Your task to perform on an android device: see creations saved in the google photos Image 0: 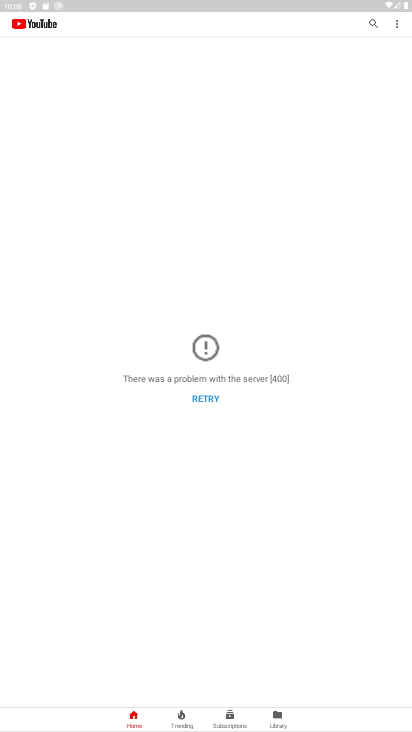
Step 0: press home button
Your task to perform on an android device: see creations saved in the google photos Image 1: 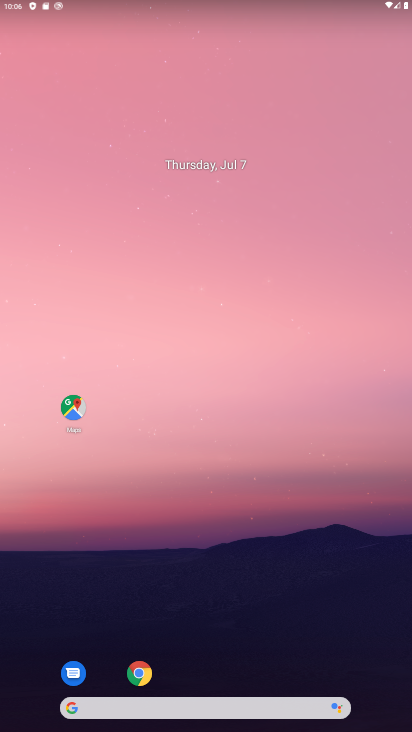
Step 1: drag from (229, 647) to (346, 108)
Your task to perform on an android device: see creations saved in the google photos Image 2: 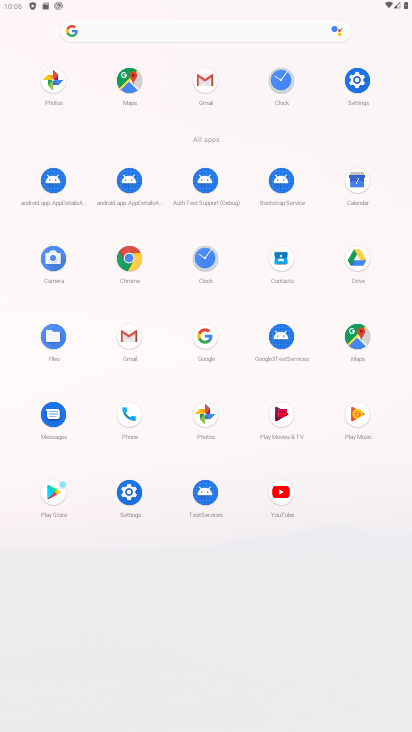
Step 2: click (209, 423)
Your task to perform on an android device: see creations saved in the google photos Image 3: 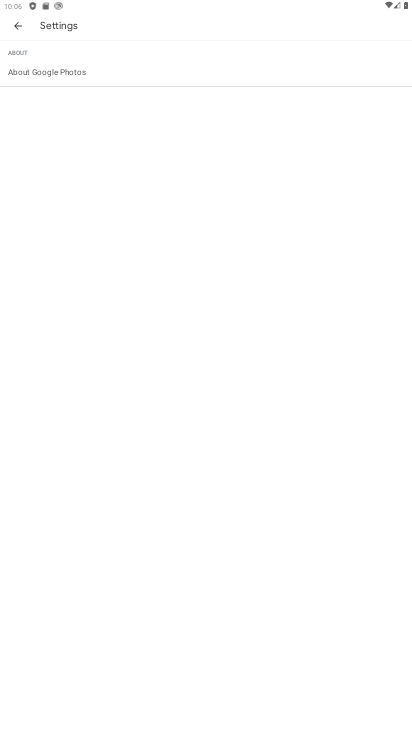
Step 3: click (17, 22)
Your task to perform on an android device: see creations saved in the google photos Image 4: 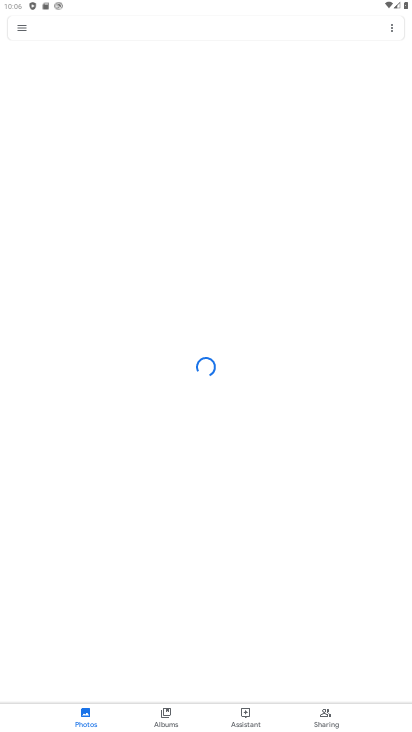
Step 4: click (201, 25)
Your task to perform on an android device: see creations saved in the google photos Image 5: 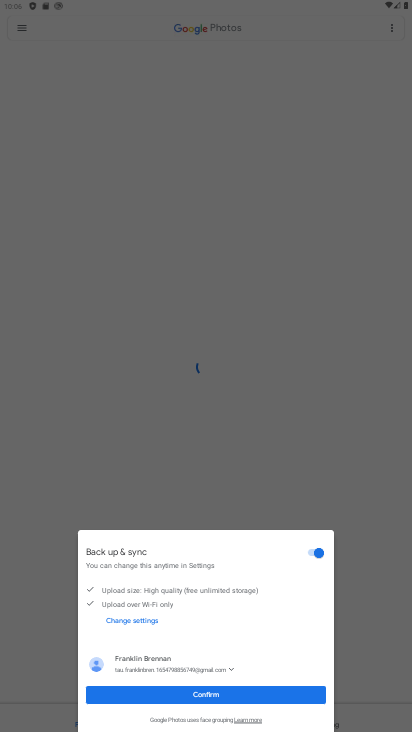
Step 5: click (246, 692)
Your task to perform on an android device: see creations saved in the google photos Image 6: 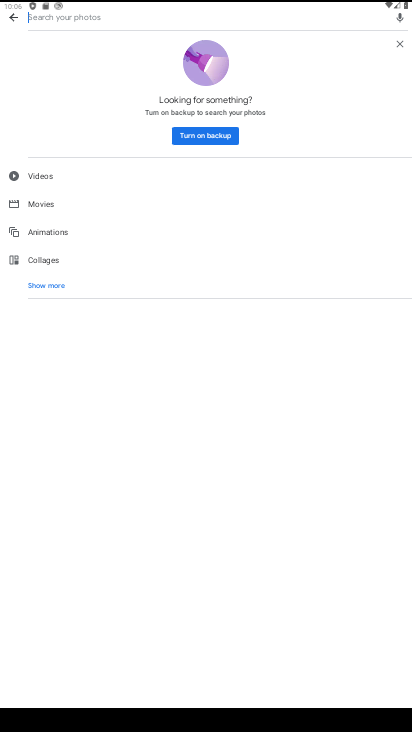
Step 6: type "creations"
Your task to perform on an android device: see creations saved in the google photos Image 7: 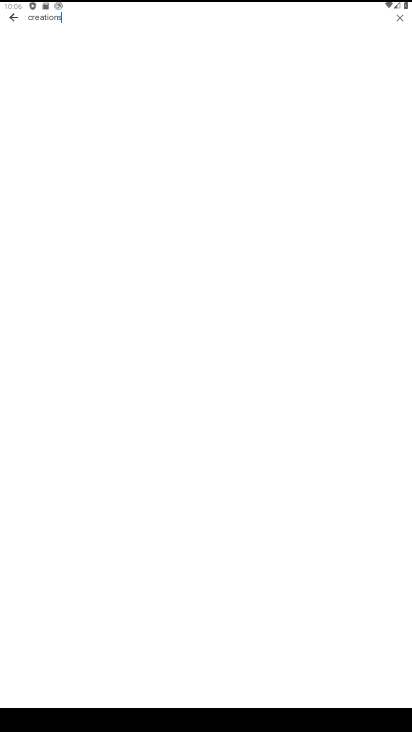
Step 7: task complete